Your task to perform on an android device: turn notification dots off Image 0: 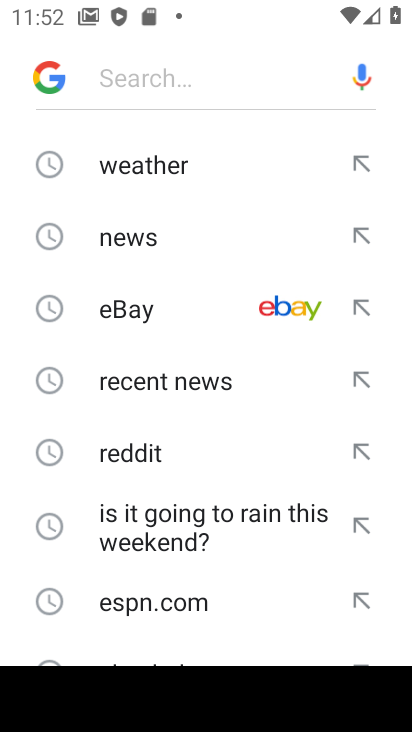
Step 0: press home button
Your task to perform on an android device: turn notification dots off Image 1: 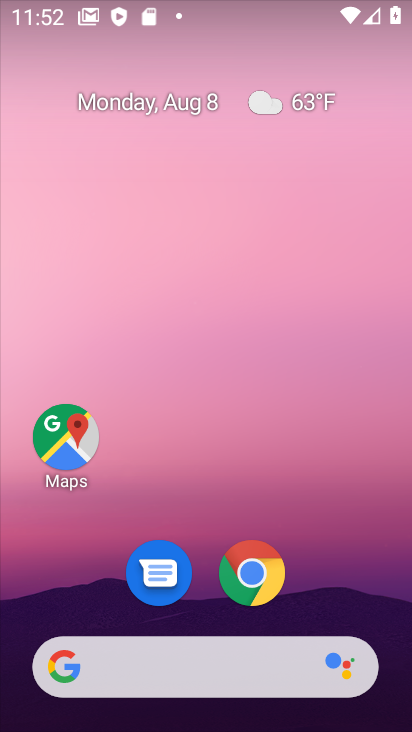
Step 1: drag from (175, 558) to (61, 397)
Your task to perform on an android device: turn notification dots off Image 2: 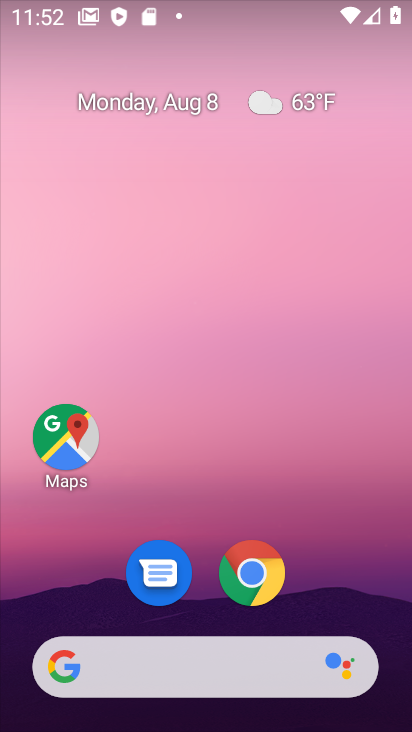
Step 2: drag from (238, 629) to (154, 417)
Your task to perform on an android device: turn notification dots off Image 3: 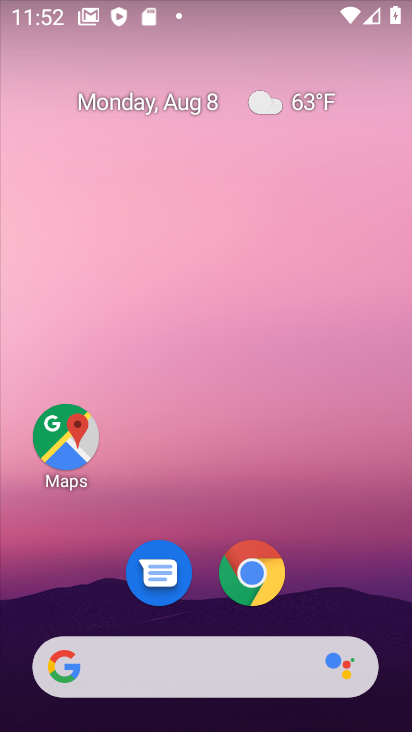
Step 3: drag from (135, 597) to (84, 462)
Your task to perform on an android device: turn notification dots off Image 4: 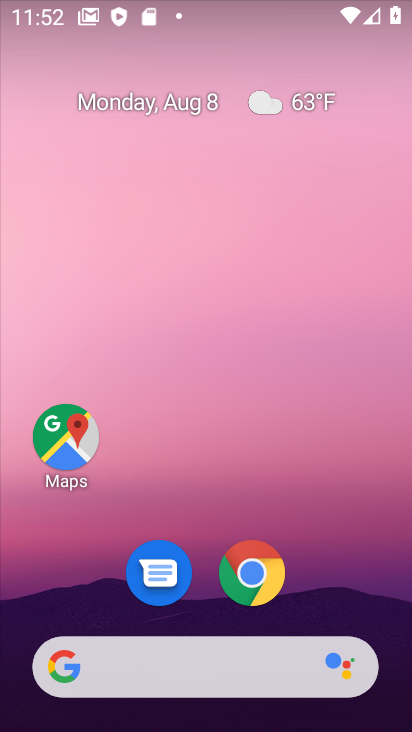
Step 4: drag from (202, 457) to (106, 212)
Your task to perform on an android device: turn notification dots off Image 5: 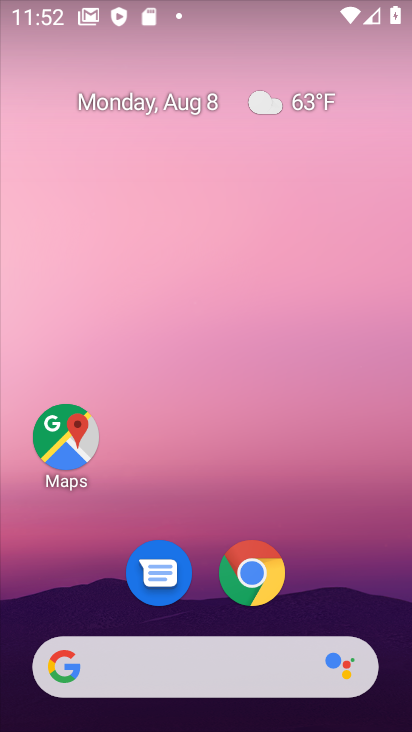
Step 5: drag from (251, 589) to (208, 334)
Your task to perform on an android device: turn notification dots off Image 6: 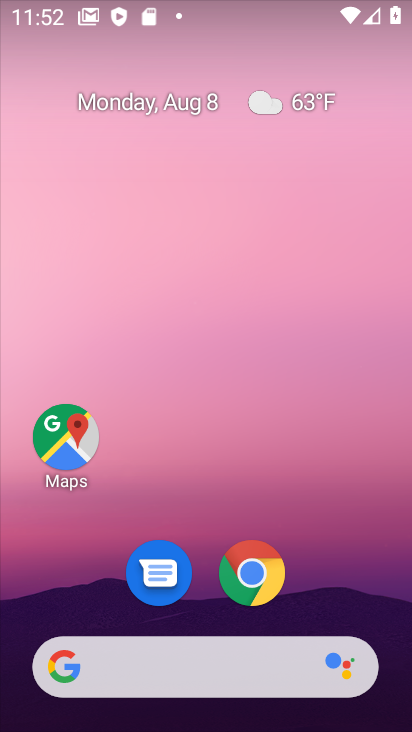
Step 6: drag from (245, 653) to (230, 116)
Your task to perform on an android device: turn notification dots off Image 7: 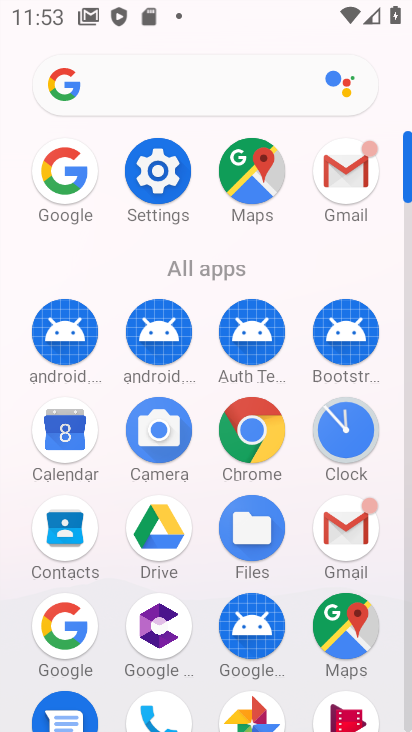
Step 7: click (154, 186)
Your task to perform on an android device: turn notification dots off Image 8: 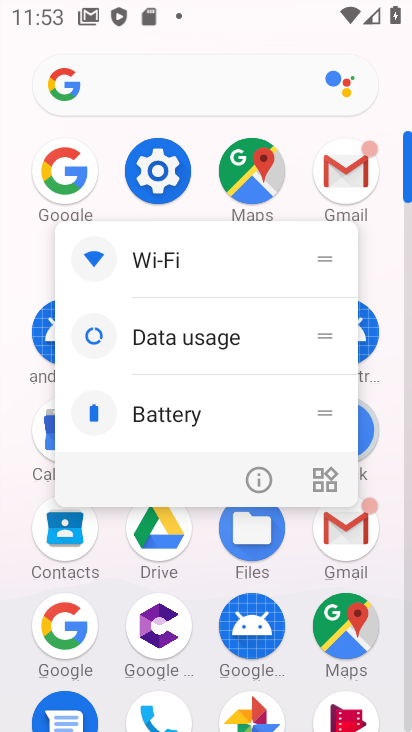
Step 8: click (154, 186)
Your task to perform on an android device: turn notification dots off Image 9: 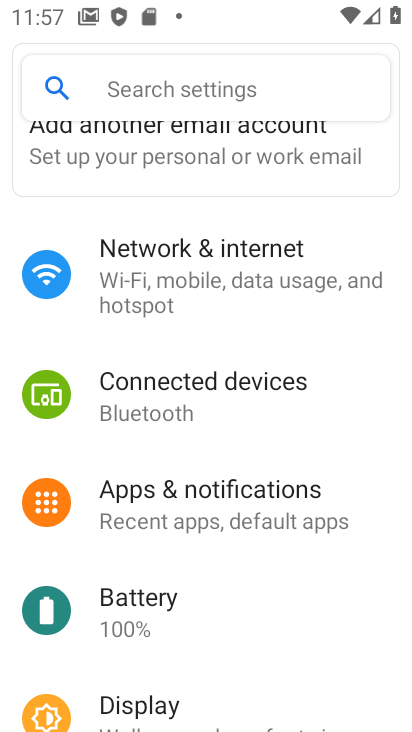
Step 9: click (156, 489)
Your task to perform on an android device: turn notification dots off Image 10: 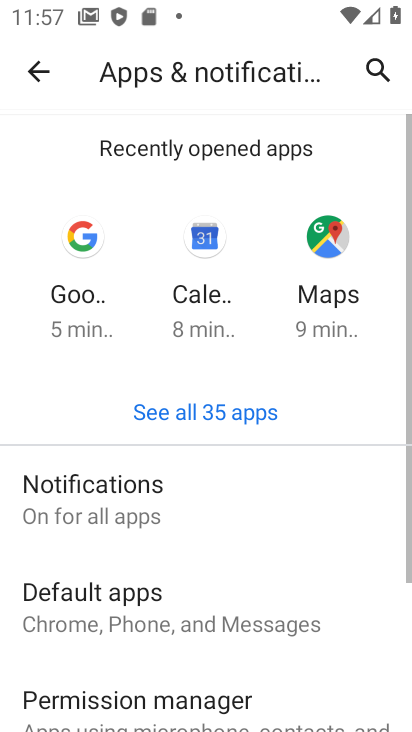
Step 10: drag from (105, 644) to (34, 409)
Your task to perform on an android device: turn notification dots off Image 11: 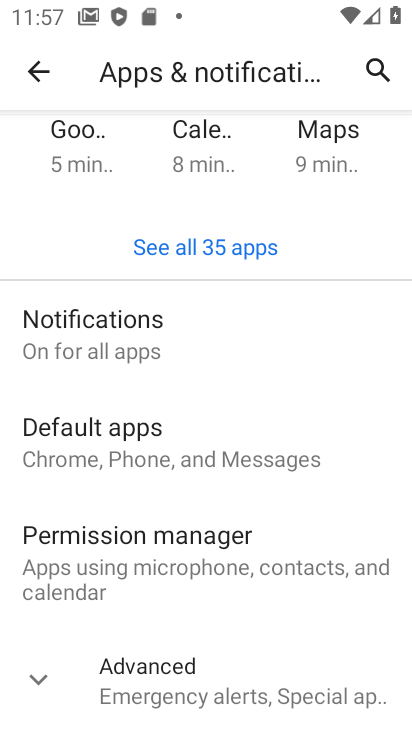
Step 11: click (54, 326)
Your task to perform on an android device: turn notification dots off Image 12: 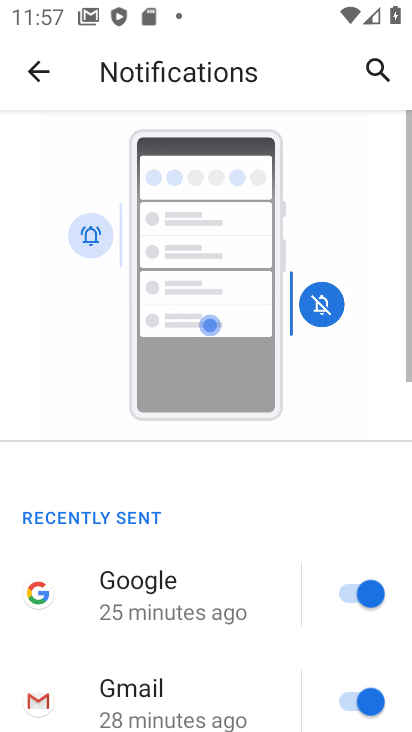
Step 12: drag from (111, 552) to (27, 242)
Your task to perform on an android device: turn notification dots off Image 13: 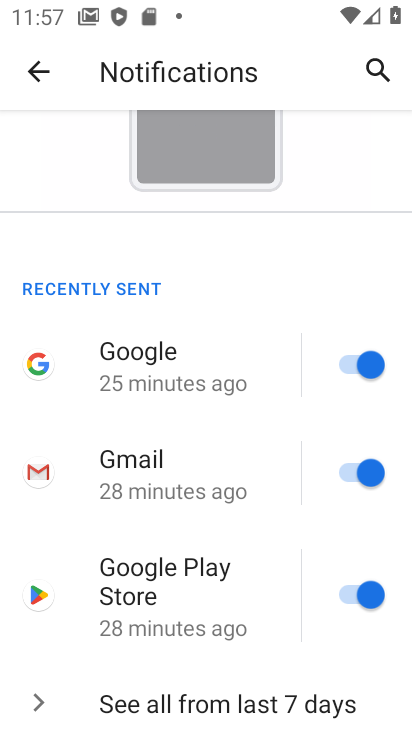
Step 13: drag from (110, 583) to (62, 425)
Your task to perform on an android device: turn notification dots off Image 14: 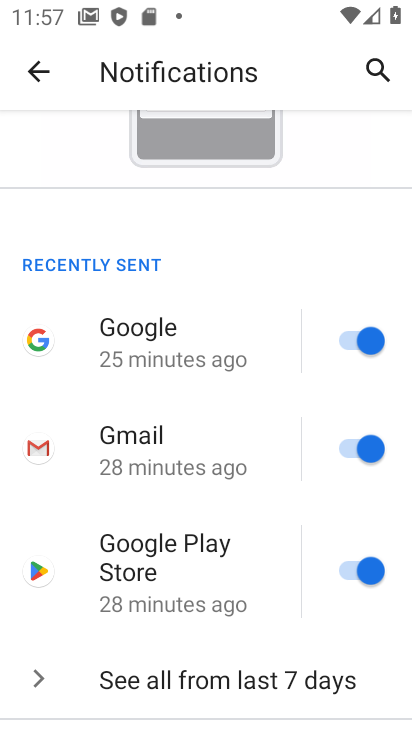
Step 14: drag from (203, 643) to (130, 399)
Your task to perform on an android device: turn notification dots off Image 15: 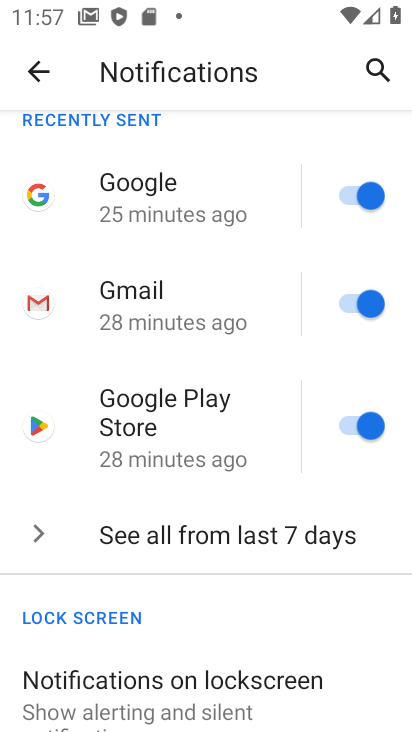
Step 15: drag from (251, 628) to (200, 342)
Your task to perform on an android device: turn notification dots off Image 16: 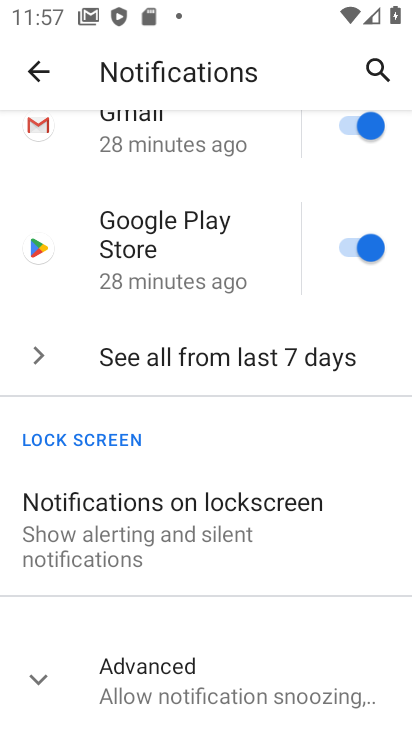
Step 16: click (204, 684)
Your task to perform on an android device: turn notification dots off Image 17: 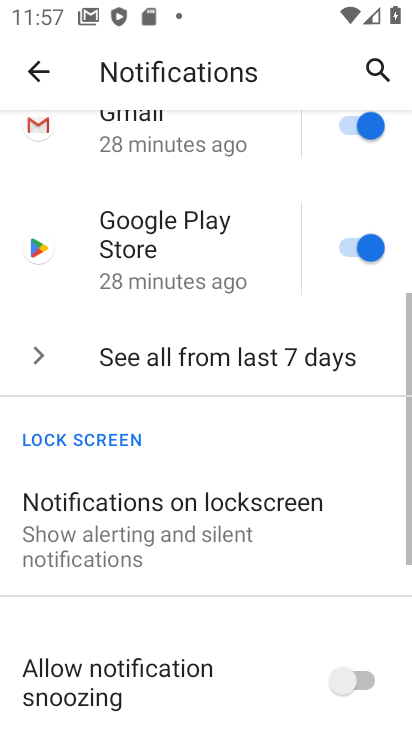
Step 17: drag from (278, 599) to (189, 406)
Your task to perform on an android device: turn notification dots off Image 18: 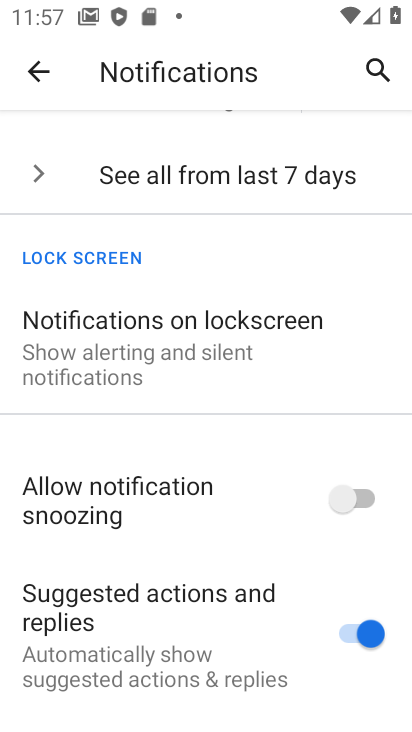
Step 18: drag from (275, 719) to (227, 592)
Your task to perform on an android device: turn notification dots off Image 19: 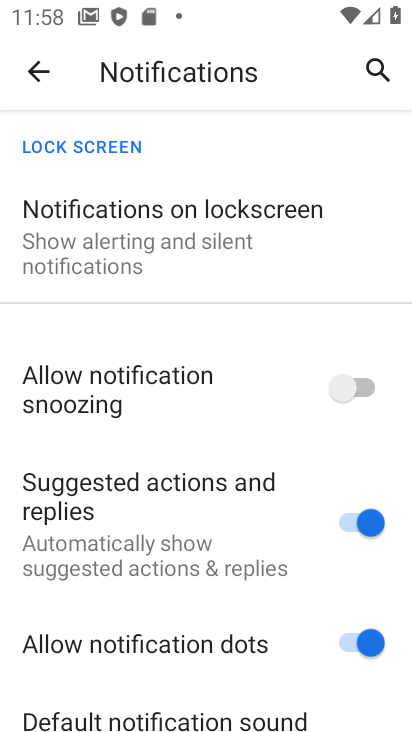
Step 19: drag from (118, 653) to (84, 435)
Your task to perform on an android device: turn notification dots off Image 20: 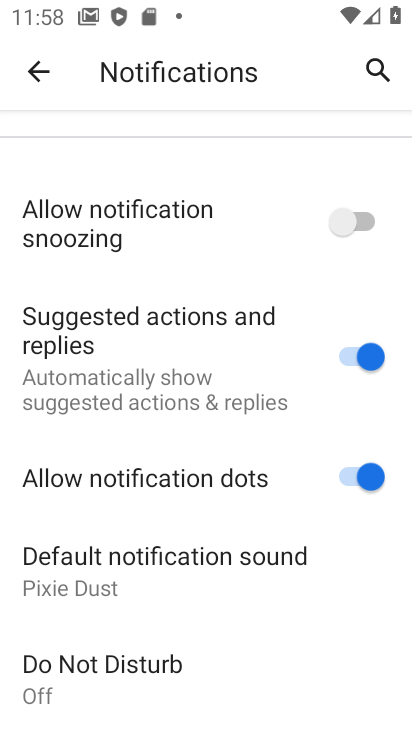
Step 20: click (336, 477)
Your task to perform on an android device: turn notification dots off Image 21: 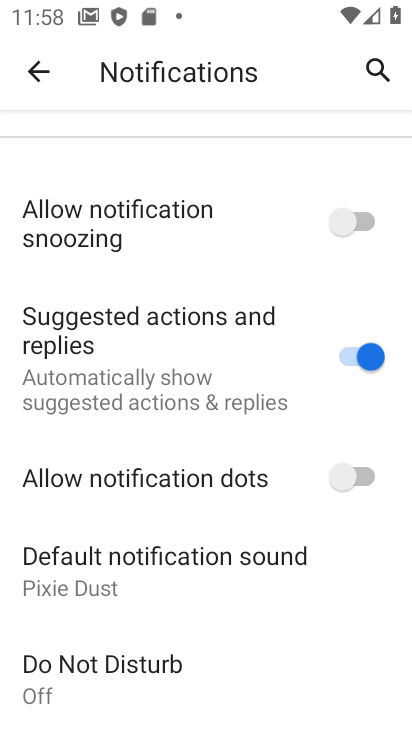
Step 21: task complete